Your task to perform on an android device: Go to internet settings Image 0: 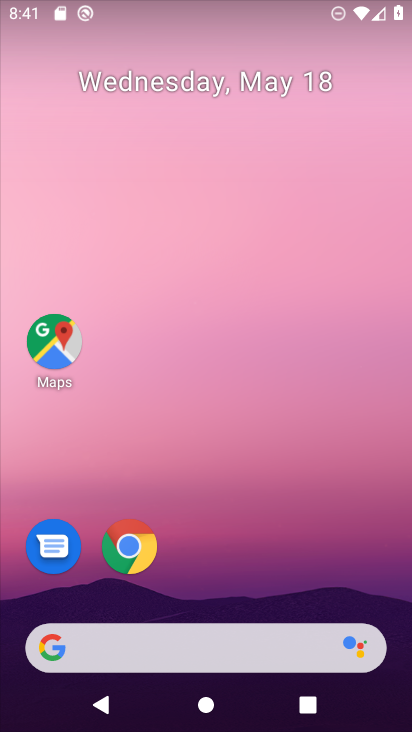
Step 0: drag from (241, 677) to (332, 163)
Your task to perform on an android device: Go to internet settings Image 1: 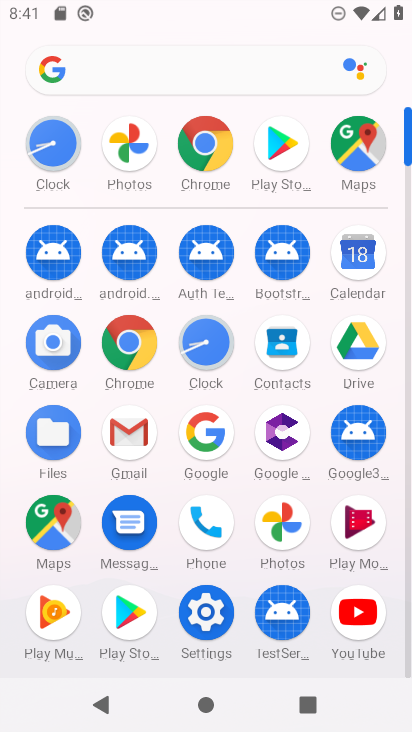
Step 1: click (188, 601)
Your task to perform on an android device: Go to internet settings Image 2: 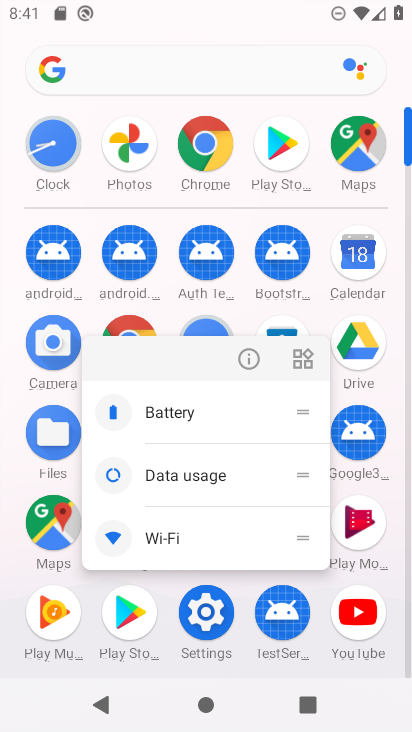
Step 2: click (205, 608)
Your task to perform on an android device: Go to internet settings Image 3: 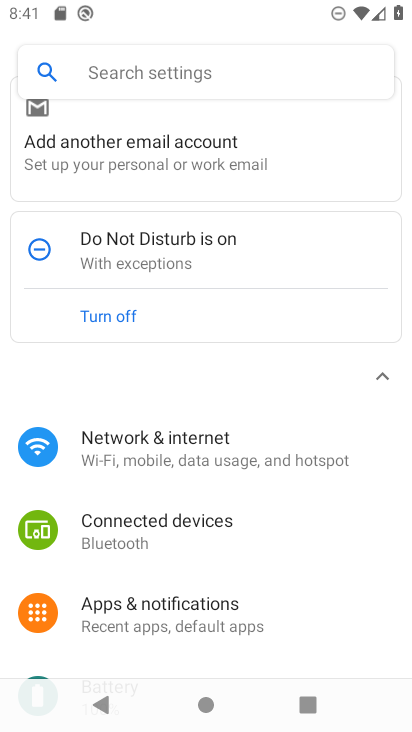
Step 3: click (207, 433)
Your task to perform on an android device: Go to internet settings Image 4: 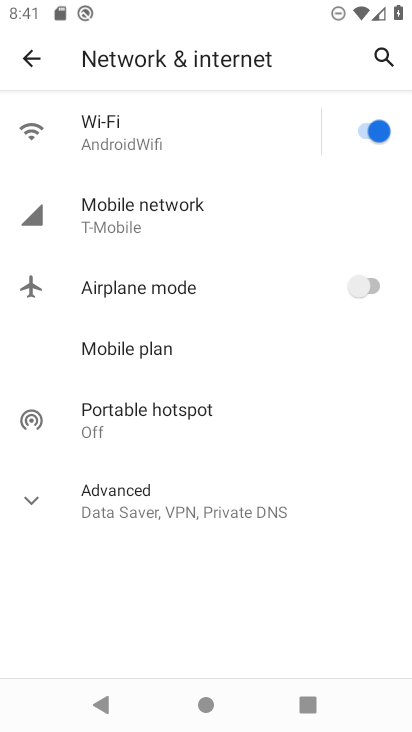
Step 4: task complete